Your task to perform on an android device: turn on notifications settings in the gmail app Image 0: 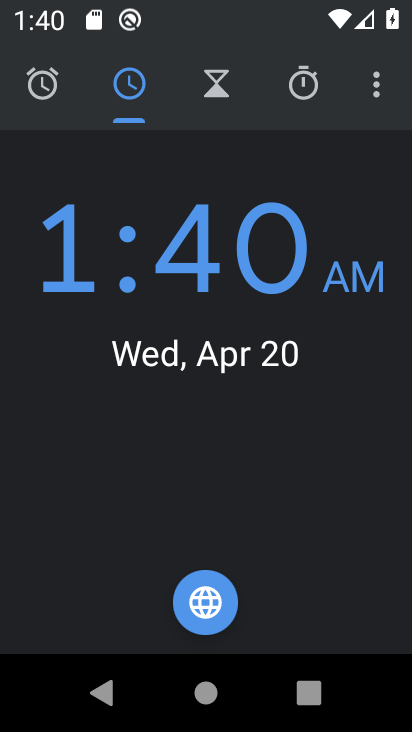
Step 0: press home button
Your task to perform on an android device: turn on notifications settings in the gmail app Image 1: 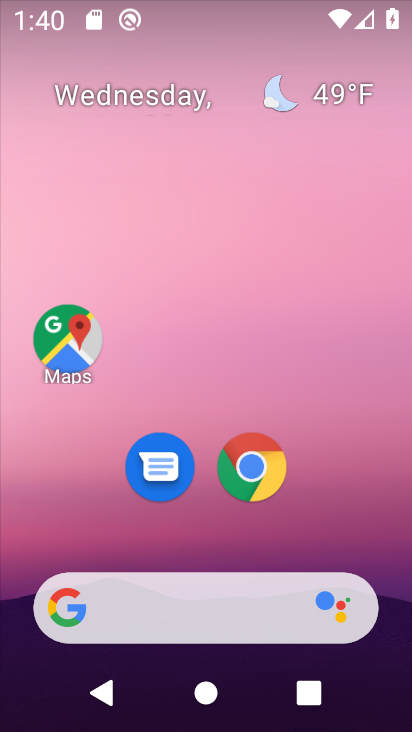
Step 1: drag from (393, 576) to (338, 181)
Your task to perform on an android device: turn on notifications settings in the gmail app Image 2: 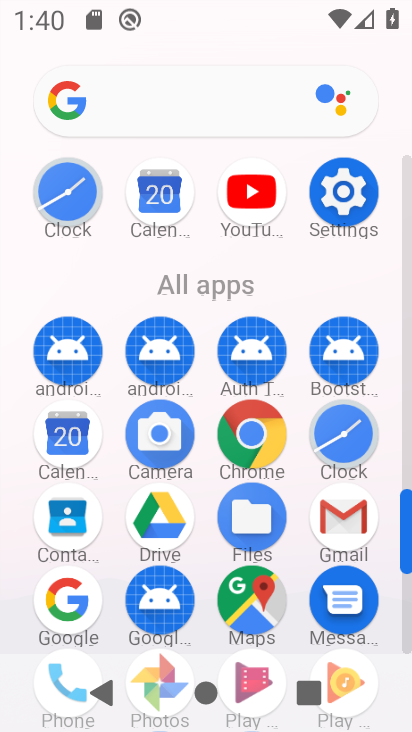
Step 2: click (406, 638)
Your task to perform on an android device: turn on notifications settings in the gmail app Image 3: 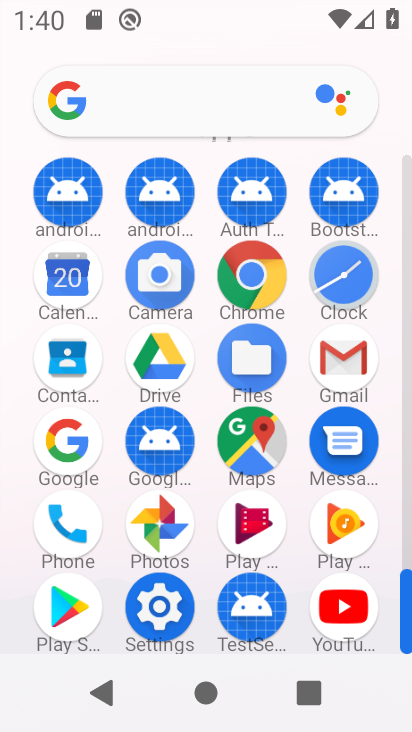
Step 3: click (342, 354)
Your task to perform on an android device: turn on notifications settings in the gmail app Image 4: 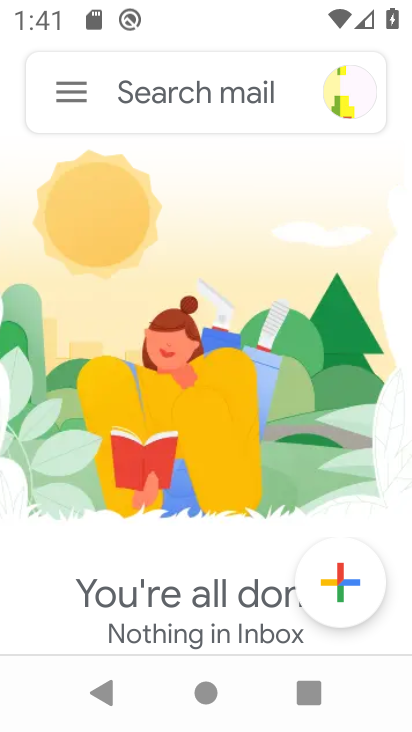
Step 4: click (67, 93)
Your task to perform on an android device: turn on notifications settings in the gmail app Image 5: 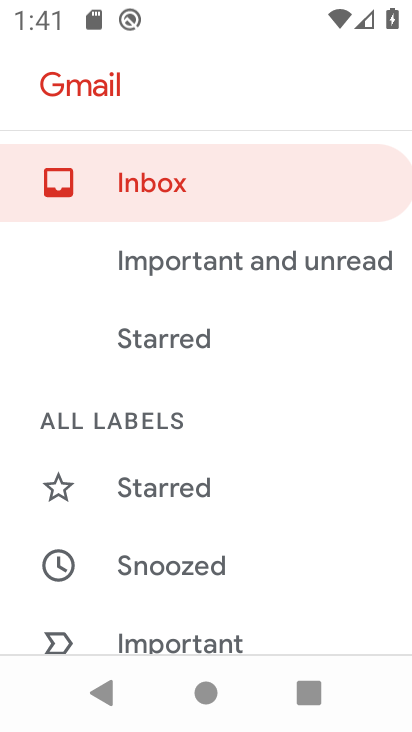
Step 5: drag from (292, 607) to (302, 294)
Your task to perform on an android device: turn on notifications settings in the gmail app Image 6: 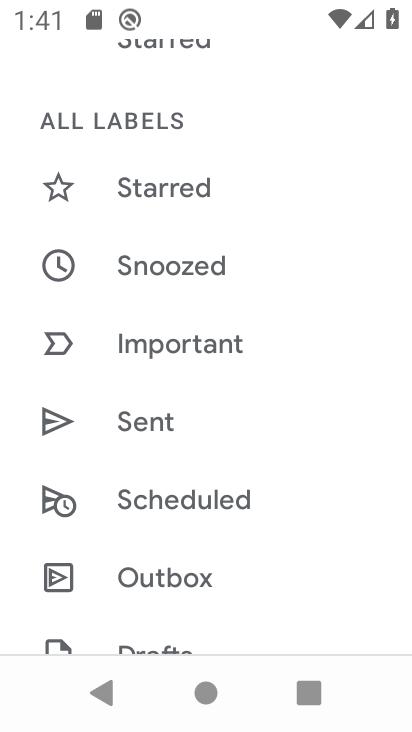
Step 6: drag from (298, 582) to (332, 294)
Your task to perform on an android device: turn on notifications settings in the gmail app Image 7: 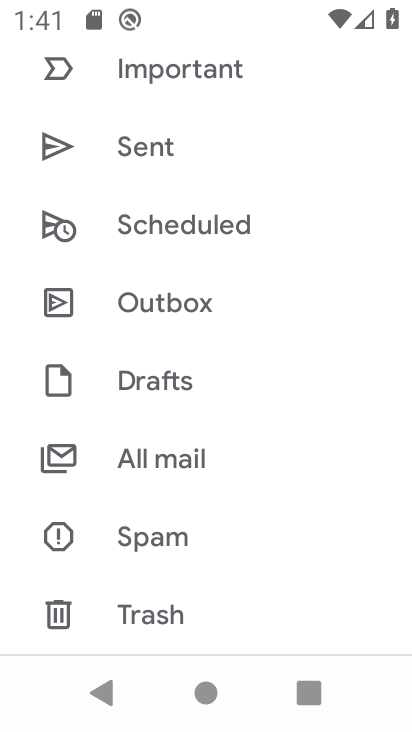
Step 7: drag from (290, 600) to (308, 307)
Your task to perform on an android device: turn on notifications settings in the gmail app Image 8: 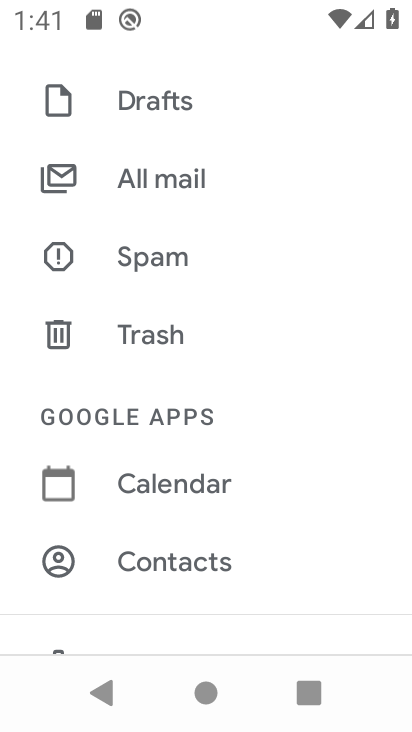
Step 8: drag from (292, 584) to (305, 245)
Your task to perform on an android device: turn on notifications settings in the gmail app Image 9: 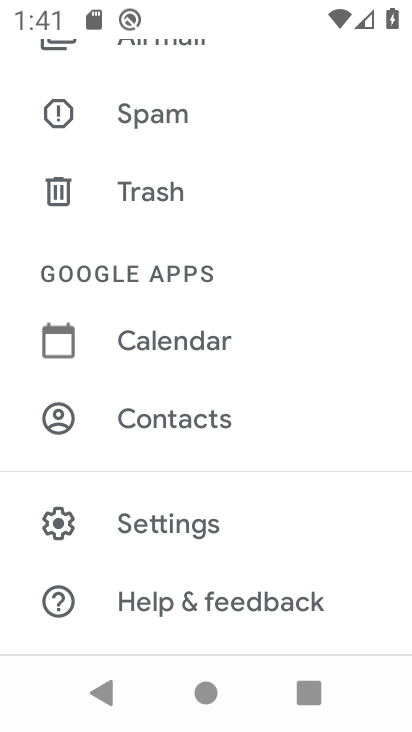
Step 9: click (155, 520)
Your task to perform on an android device: turn on notifications settings in the gmail app Image 10: 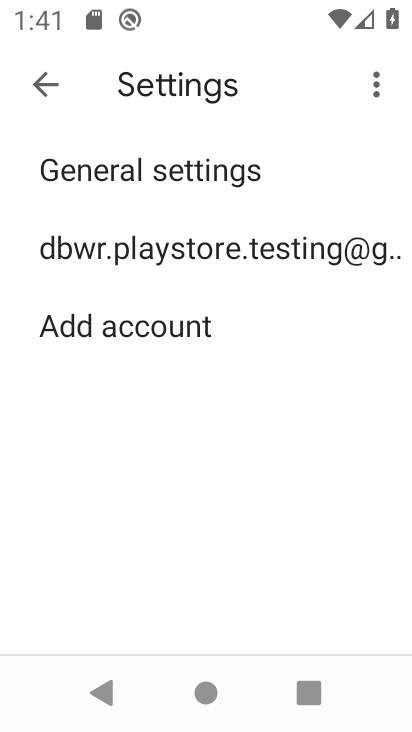
Step 10: click (188, 245)
Your task to perform on an android device: turn on notifications settings in the gmail app Image 11: 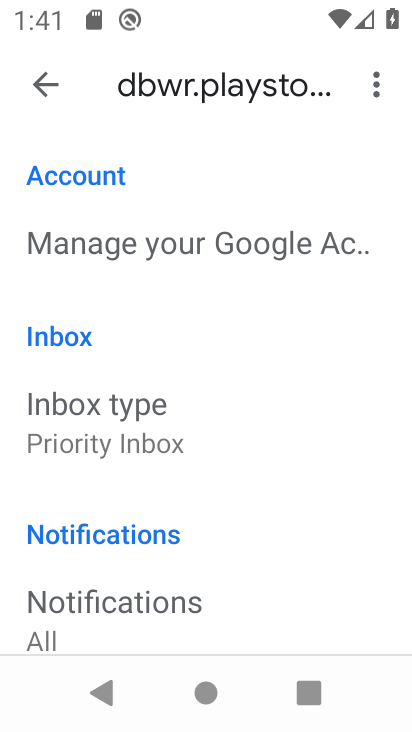
Step 11: drag from (225, 548) to (233, 180)
Your task to perform on an android device: turn on notifications settings in the gmail app Image 12: 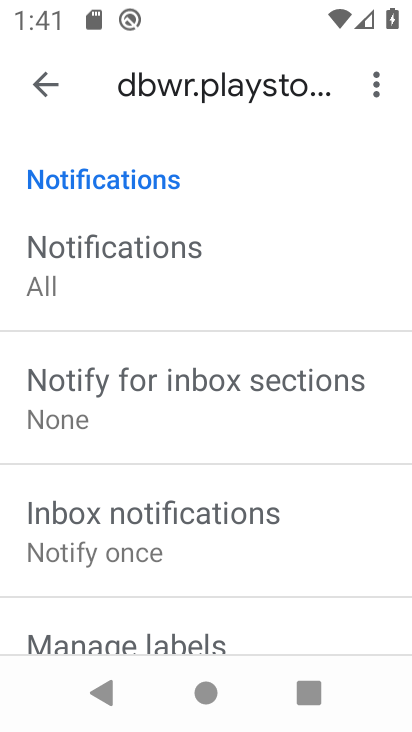
Step 12: drag from (294, 576) to (288, 197)
Your task to perform on an android device: turn on notifications settings in the gmail app Image 13: 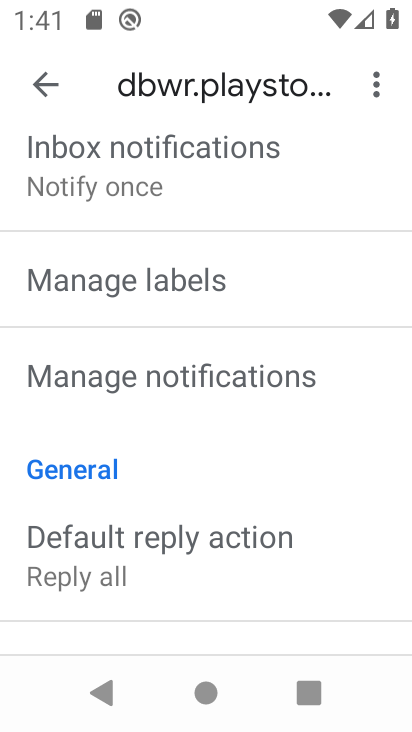
Step 13: click (126, 380)
Your task to perform on an android device: turn on notifications settings in the gmail app Image 14: 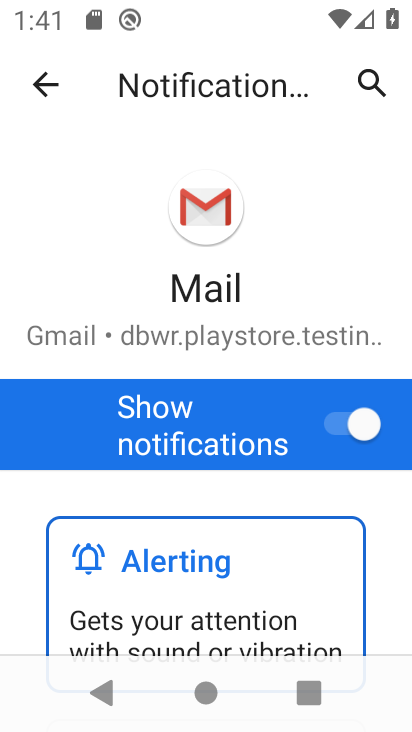
Step 14: task complete